Your task to perform on an android device: Show me popular games on the Play Store Image 0: 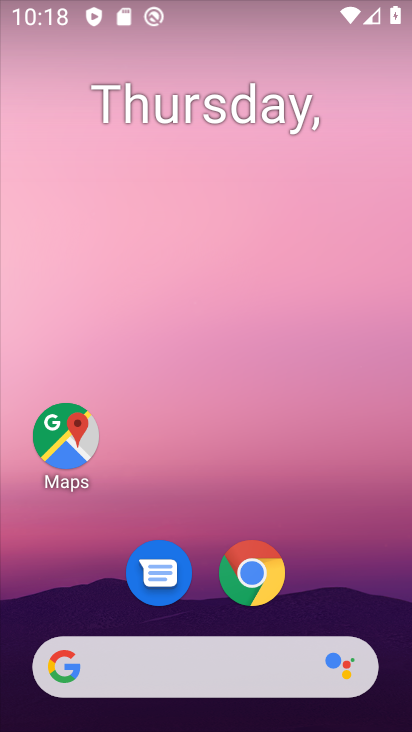
Step 0: drag from (355, 604) to (185, 199)
Your task to perform on an android device: Show me popular games on the Play Store Image 1: 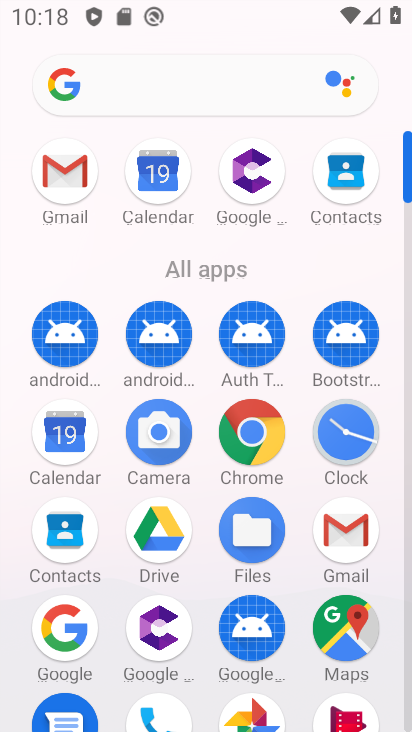
Step 1: drag from (269, 670) to (226, 325)
Your task to perform on an android device: Show me popular games on the Play Store Image 2: 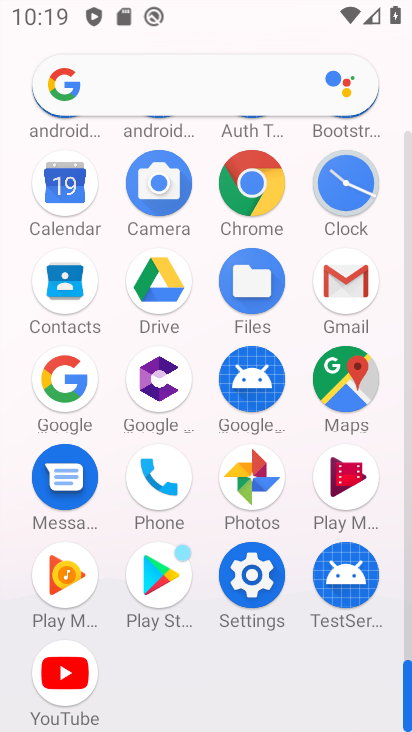
Step 2: click (159, 573)
Your task to perform on an android device: Show me popular games on the Play Store Image 3: 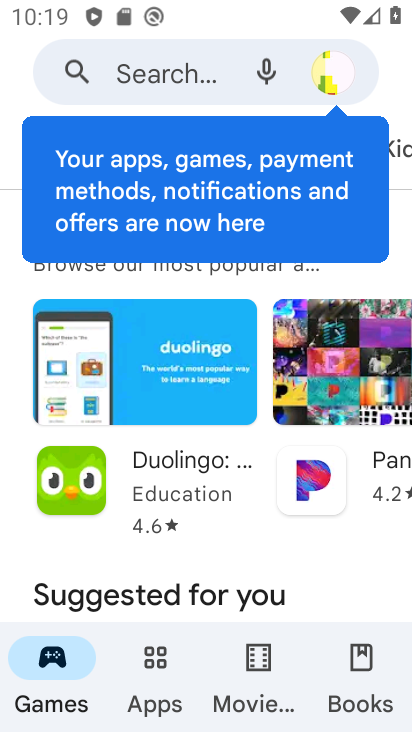
Step 3: drag from (160, 477) to (122, 191)
Your task to perform on an android device: Show me popular games on the Play Store Image 4: 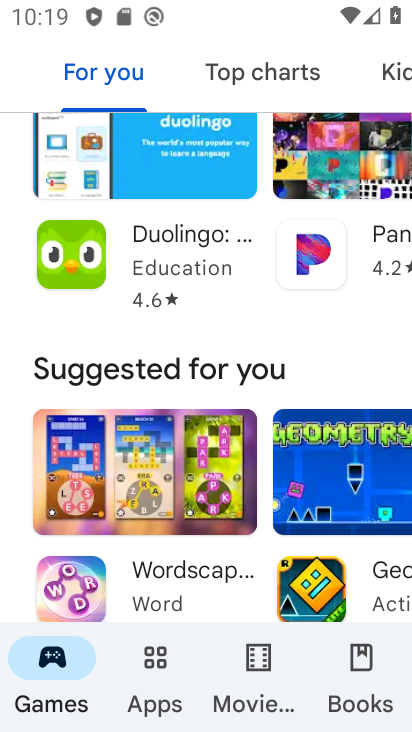
Step 4: drag from (206, 535) to (198, 330)
Your task to perform on an android device: Show me popular games on the Play Store Image 5: 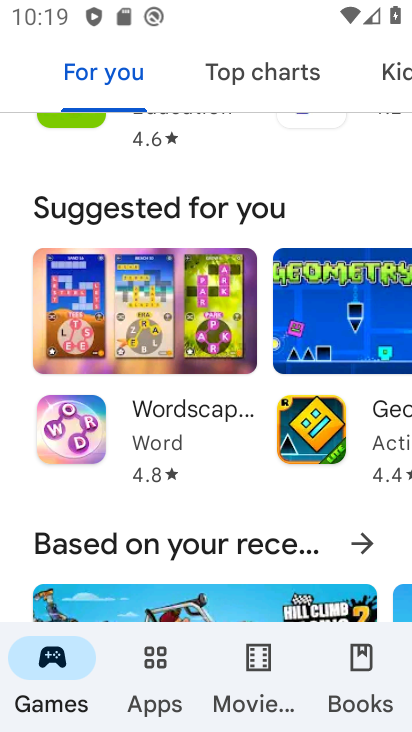
Step 5: click (199, 277)
Your task to perform on an android device: Show me popular games on the Play Store Image 6: 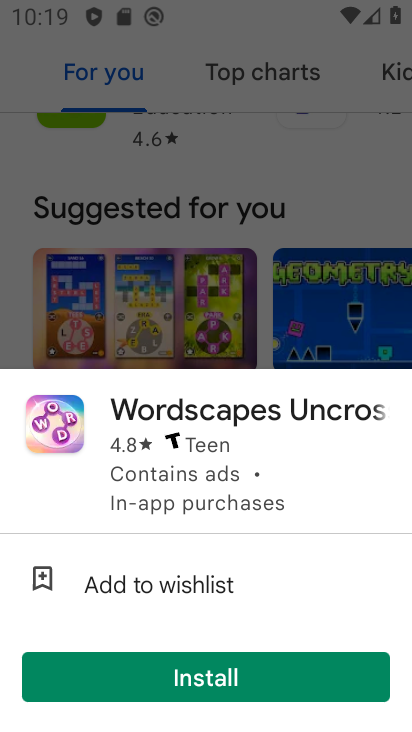
Step 6: drag from (255, 324) to (204, 134)
Your task to perform on an android device: Show me popular games on the Play Store Image 7: 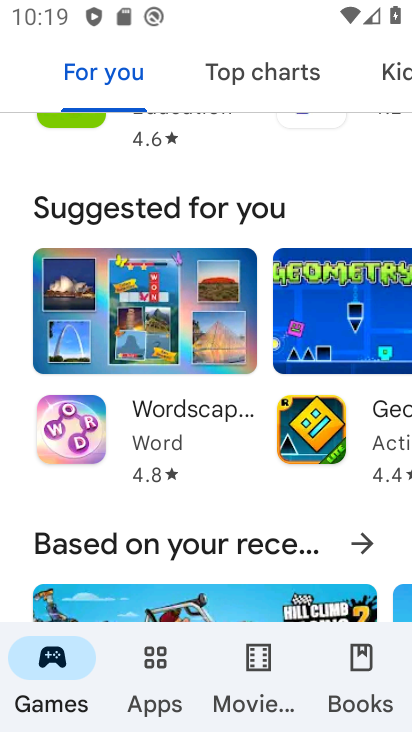
Step 7: drag from (134, 549) to (161, 299)
Your task to perform on an android device: Show me popular games on the Play Store Image 8: 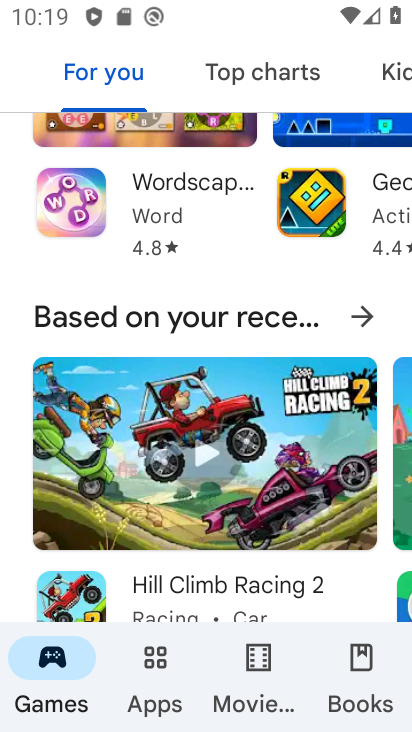
Step 8: drag from (278, 581) to (212, 221)
Your task to perform on an android device: Show me popular games on the Play Store Image 9: 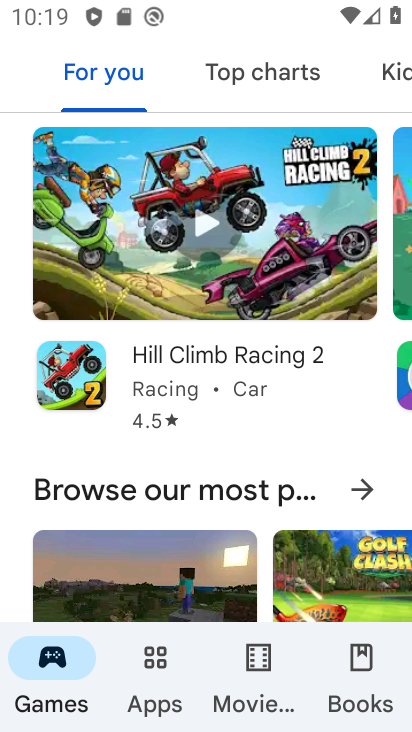
Step 9: drag from (123, 542) to (151, 254)
Your task to perform on an android device: Show me popular games on the Play Store Image 10: 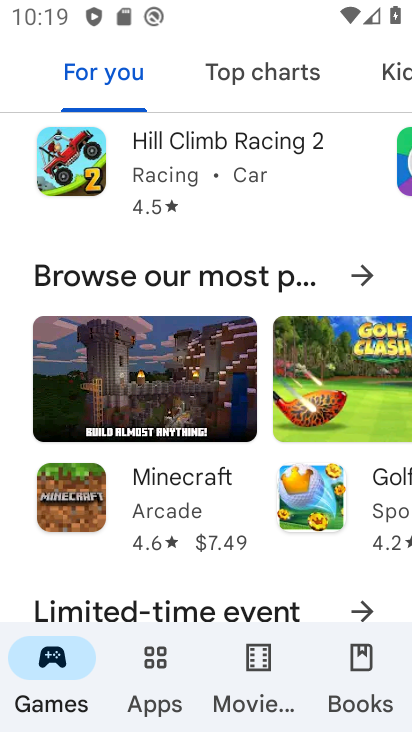
Step 10: drag from (332, 573) to (260, 322)
Your task to perform on an android device: Show me popular games on the Play Store Image 11: 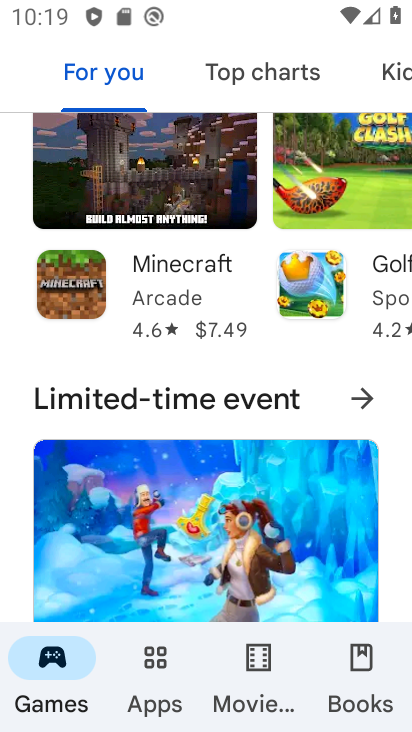
Step 11: click (243, 290)
Your task to perform on an android device: Show me popular games on the Play Store Image 12: 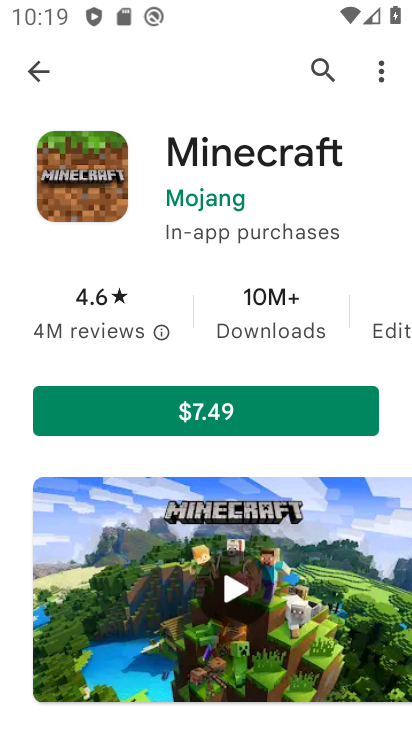
Step 12: click (28, 64)
Your task to perform on an android device: Show me popular games on the Play Store Image 13: 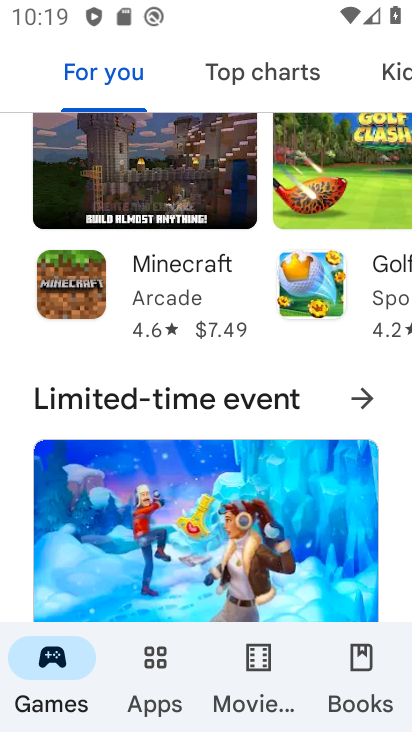
Step 13: drag from (228, 547) to (153, 148)
Your task to perform on an android device: Show me popular games on the Play Store Image 14: 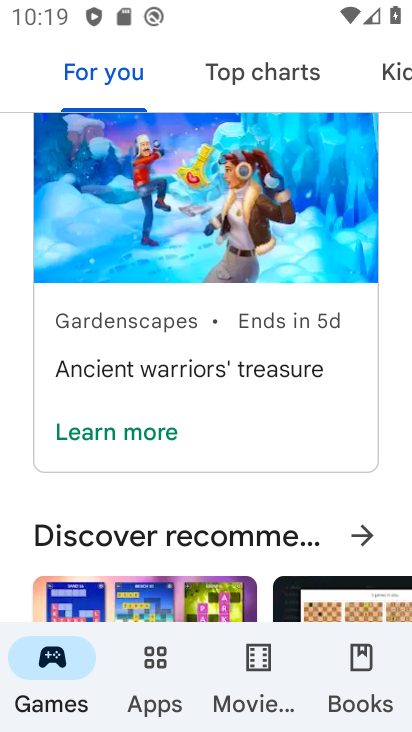
Step 14: drag from (177, 549) to (152, 225)
Your task to perform on an android device: Show me popular games on the Play Store Image 15: 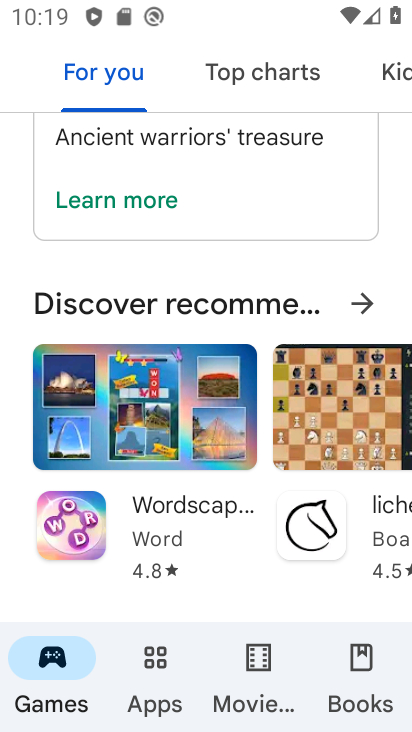
Step 15: click (152, 225)
Your task to perform on an android device: Show me popular games on the Play Store Image 16: 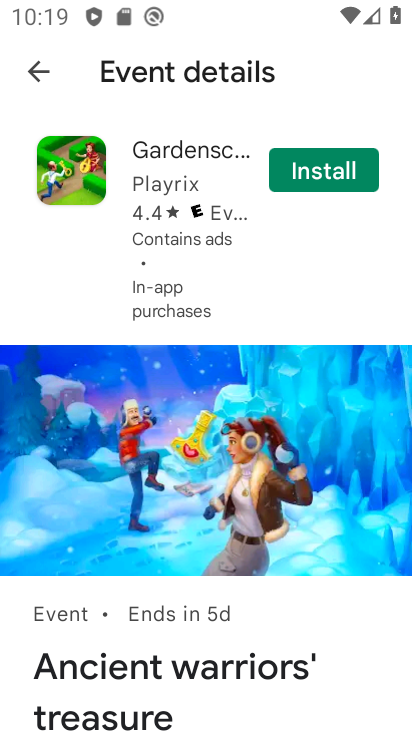
Step 16: drag from (220, 658) to (184, 302)
Your task to perform on an android device: Show me popular games on the Play Store Image 17: 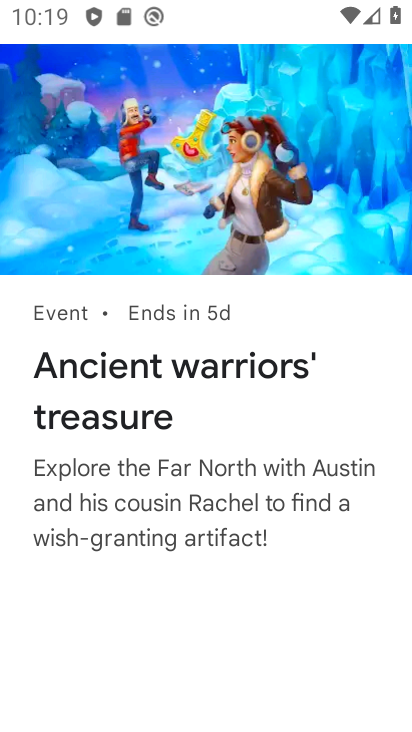
Step 17: drag from (233, 636) to (162, 273)
Your task to perform on an android device: Show me popular games on the Play Store Image 18: 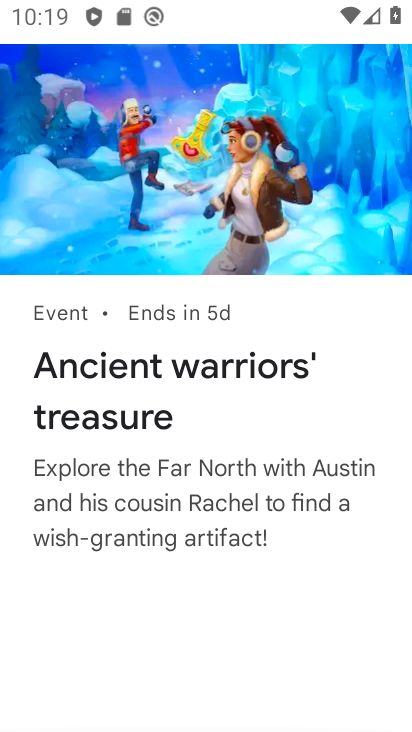
Step 18: drag from (104, 233) to (114, 717)
Your task to perform on an android device: Show me popular games on the Play Store Image 19: 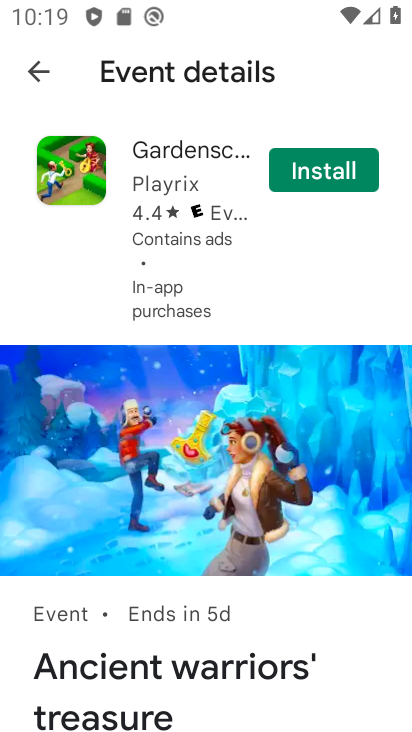
Step 19: click (43, 60)
Your task to perform on an android device: Show me popular games on the Play Store Image 20: 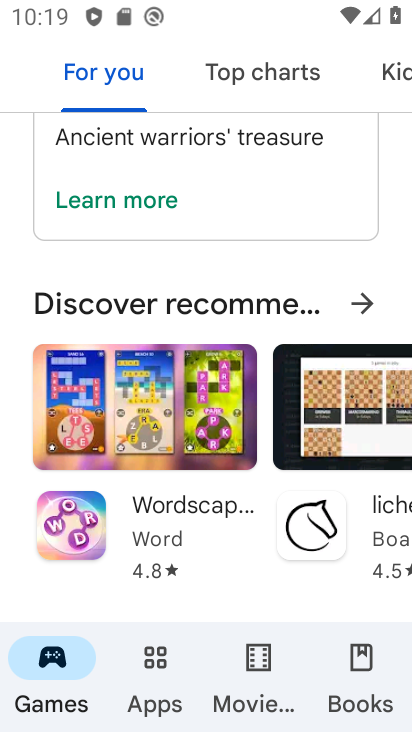
Step 20: task complete